Your task to perform on an android device: Open ESPN.com Image 0: 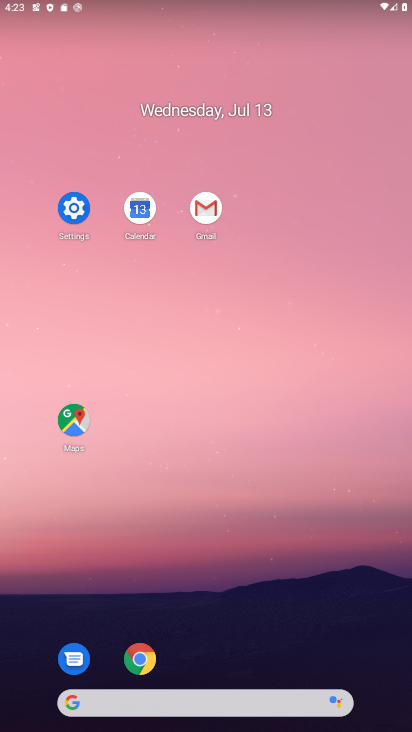
Step 0: click (143, 656)
Your task to perform on an android device: Open ESPN.com Image 1: 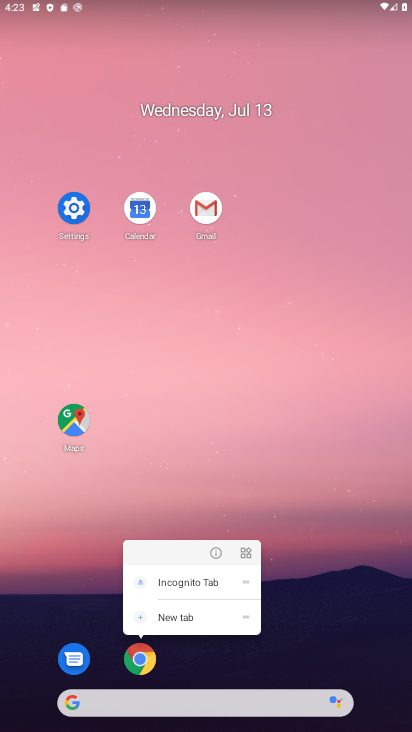
Step 1: click (141, 656)
Your task to perform on an android device: Open ESPN.com Image 2: 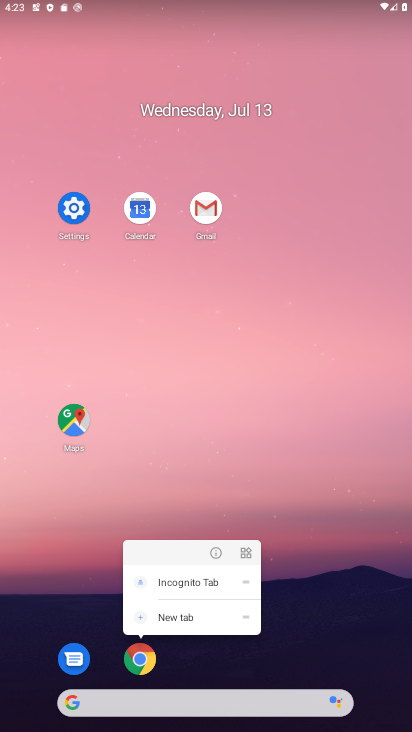
Step 2: click (144, 678)
Your task to perform on an android device: Open ESPN.com Image 3: 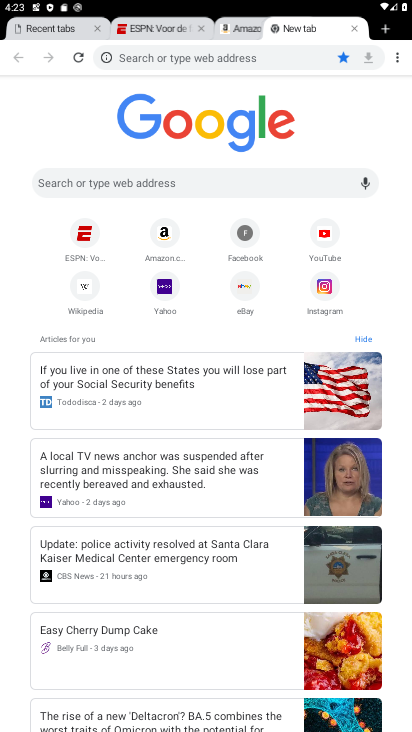
Step 3: click (90, 237)
Your task to perform on an android device: Open ESPN.com Image 4: 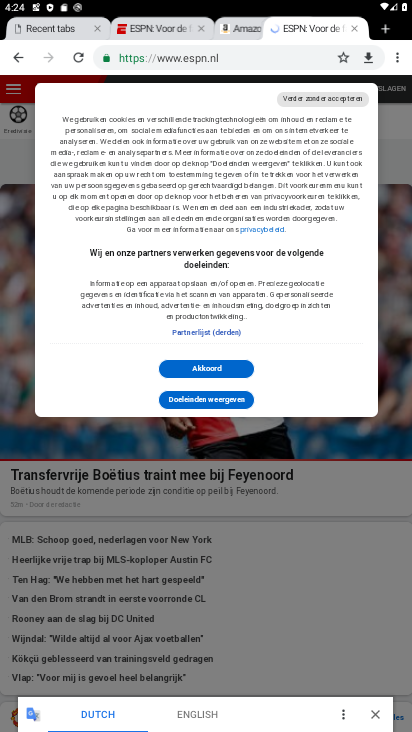
Step 4: task complete